Your task to perform on an android device: open a bookmark in the chrome app Image 0: 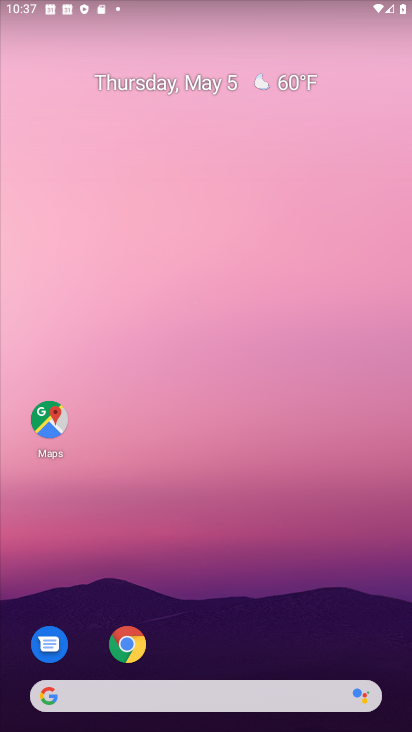
Step 0: drag from (182, 663) to (249, 232)
Your task to perform on an android device: open a bookmark in the chrome app Image 1: 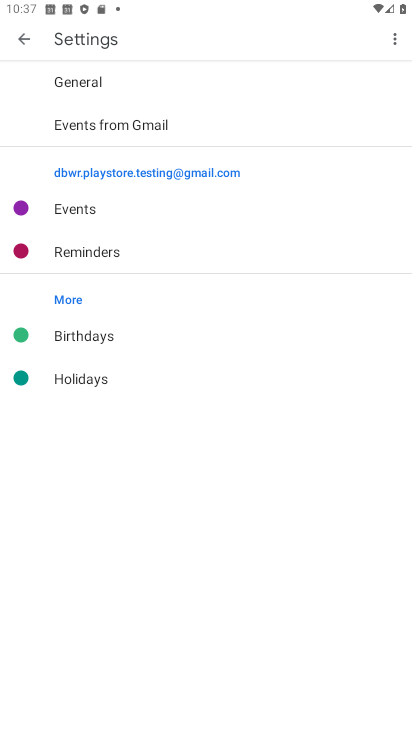
Step 1: press home button
Your task to perform on an android device: open a bookmark in the chrome app Image 2: 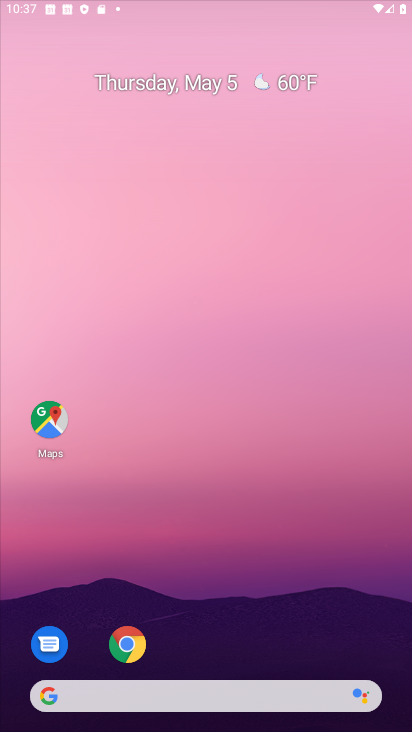
Step 2: drag from (228, 597) to (219, 273)
Your task to perform on an android device: open a bookmark in the chrome app Image 3: 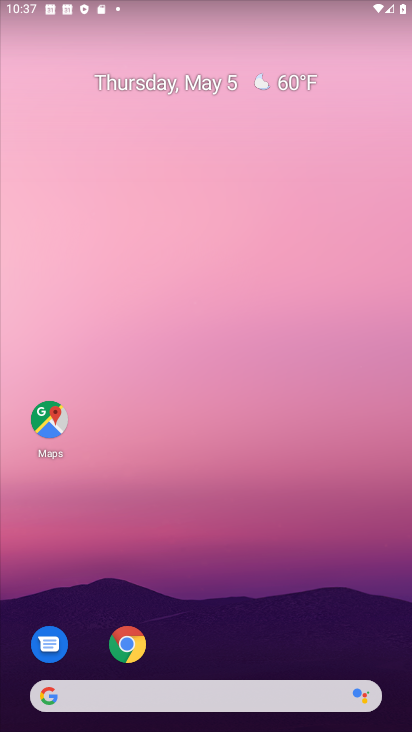
Step 3: drag from (169, 620) to (270, 69)
Your task to perform on an android device: open a bookmark in the chrome app Image 4: 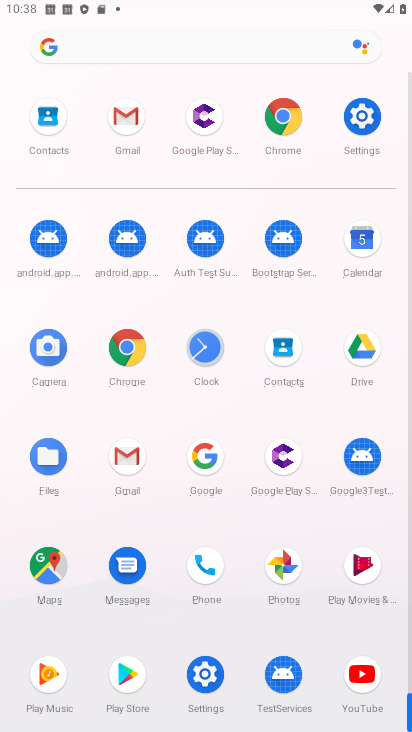
Step 4: click (273, 124)
Your task to perform on an android device: open a bookmark in the chrome app Image 5: 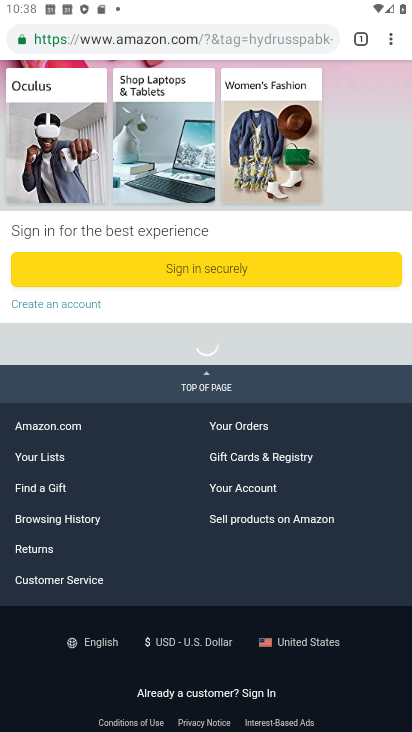
Step 5: drag from (202, 163) to (287, 600)
Your task to perform on an android device: open a bookmark in the chrome app Image 6: 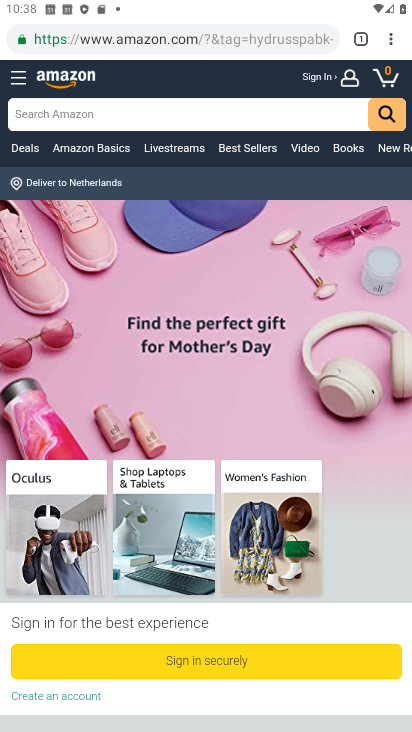
Step 6: drag from (217, 594) to (193, 307)
Your task to perform on an android device: open a bookmark in the chrome app Image 7: 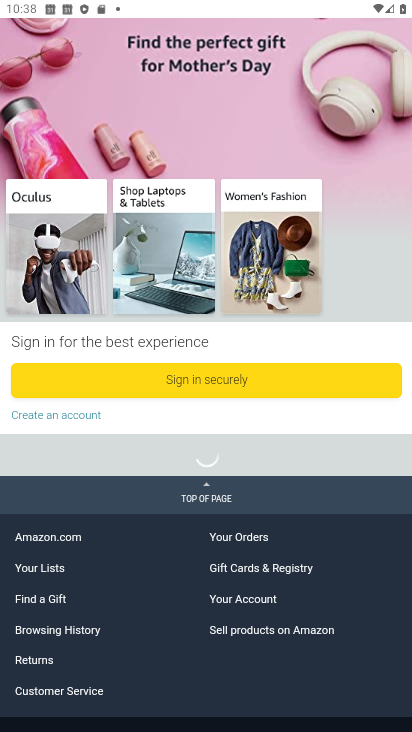
Step 7: drag from (181, 601) to (181, 164)
Your task to perform on an android device: open a bookmark in the chrome app Image 8: 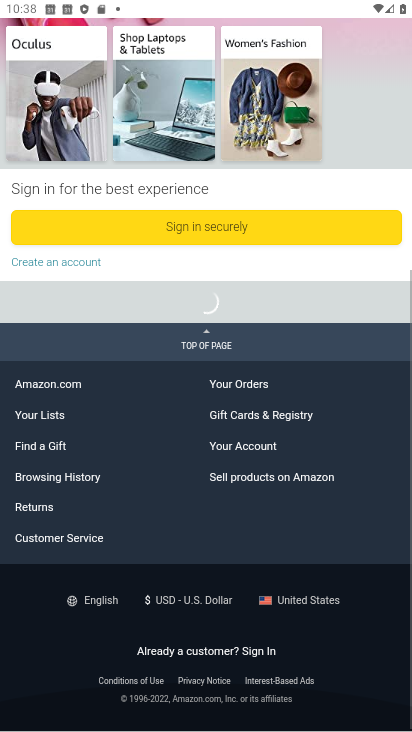
Step 8: drag from (180, 102) to (324, 709)
Your task to perform on an android device: open a bookmark in the chrome app Image 9: 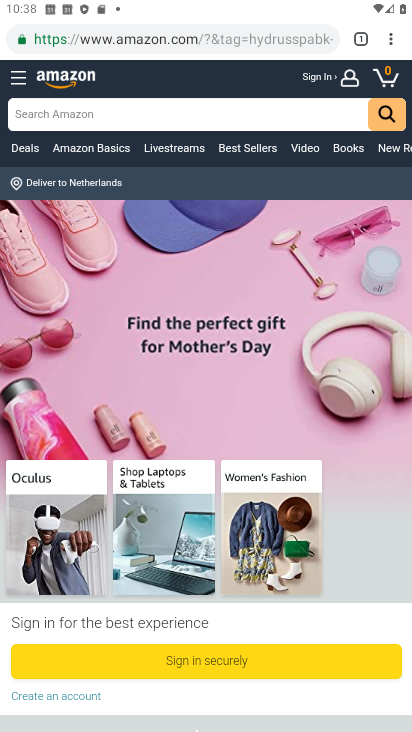
Step 9: click (386, 39)
Your task to perform on an android device: open a bookmark in the chrome app Image 10: 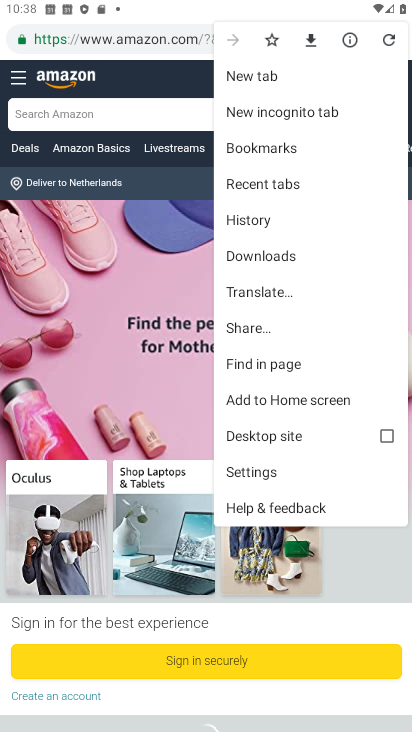
Step 10: click (301, 147)
Your task to perform on an android device: open a bookmark in the chrome app Image 11: 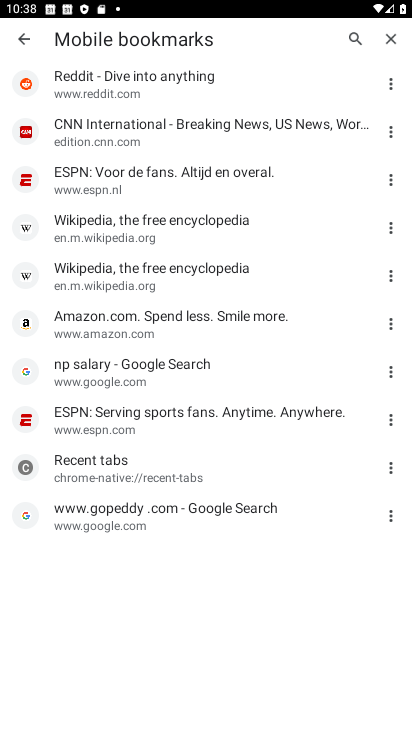
Step 11: drag from (199, 588) to (232, 176)
Your task to perform on an android device: open a bookmark in the chrome app Image 12: 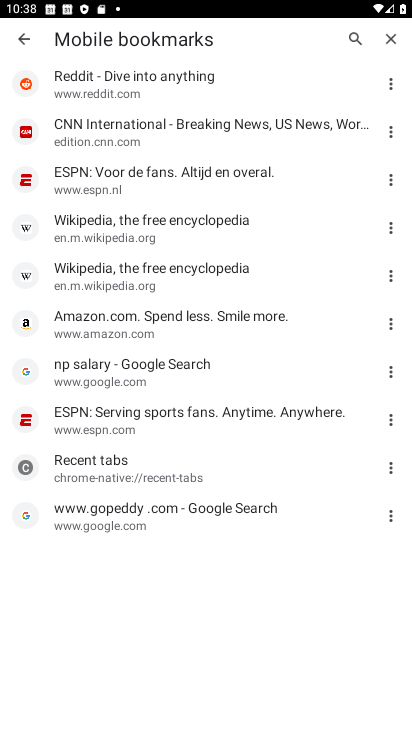
Step 12: click (388, 35)
Your task to perform on an android device: open a bookmark in the chrome app Image 13: 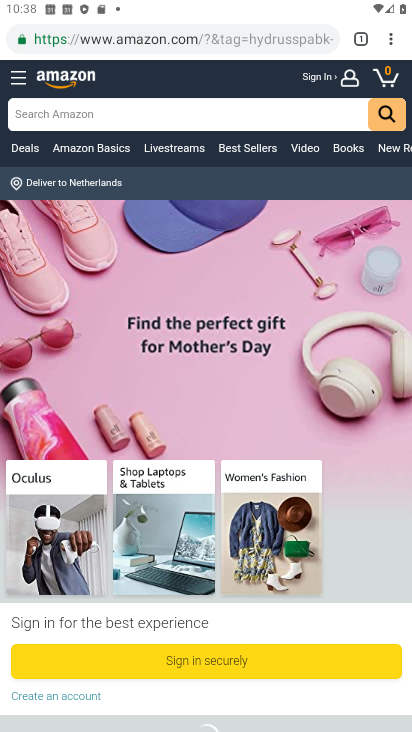
Step 13: click (385, 38)
Your task to perform on an android device: open a bookmark in the chrome app Image 14: 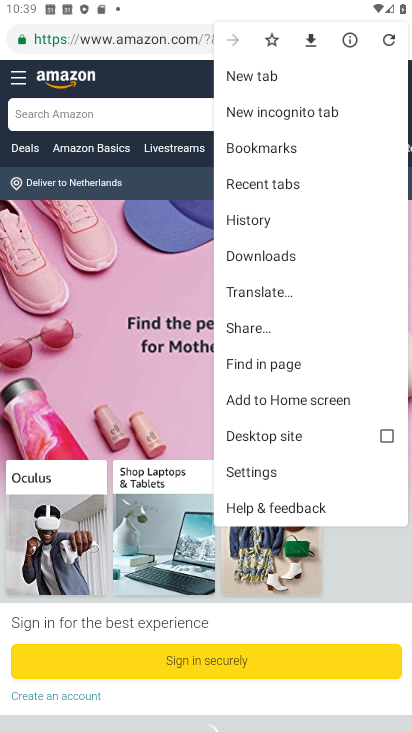
Step 14: click (273, 146)
Your task to perform on an android device: open a bookmark in the chrome app Image 15: 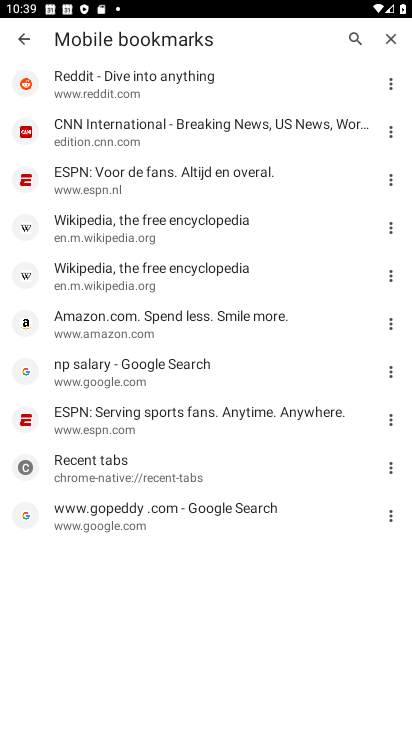
Step 15: drag from (244, 440) to (244, 62)
Your task to perform on an android device: open a bookmark in the chrome app Image 16: 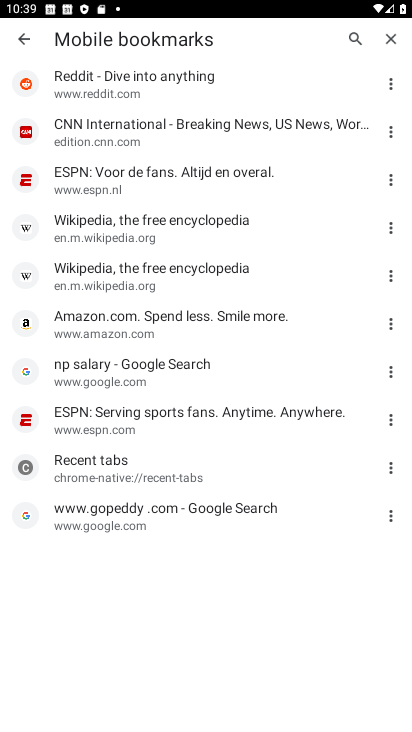
Step 16: click (120, 218)
Your task to perform on an android device: open a bookmark in the chrome app Image 17: 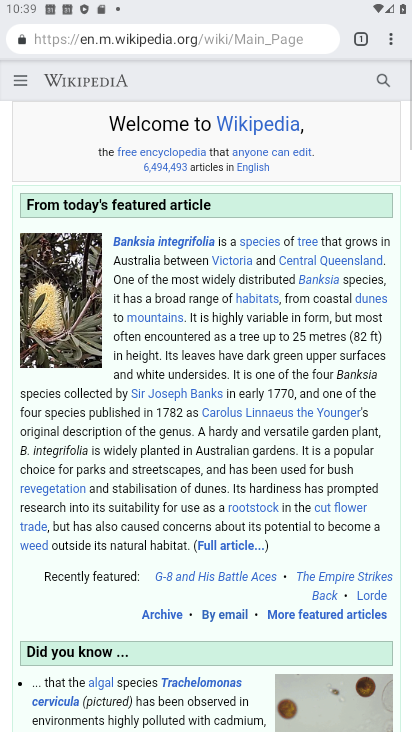
Step 17: drag from (254, 552) to (351, 91)
Your task to perform on an android device: open a bookmark in the chrome app Image 18: 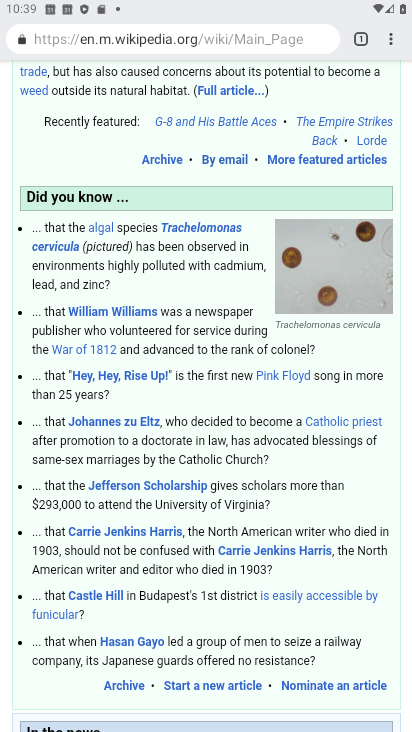
Step 18: click (385, 30)
Your task to perform on an android device: open a bookmark in the chrome app Image 19: 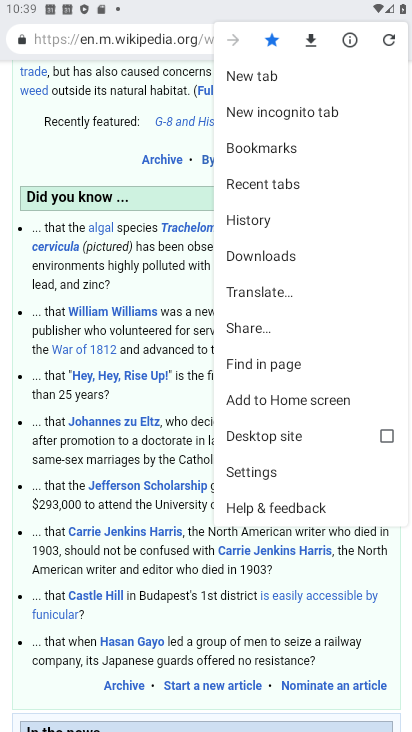
Step 19: click (277, 156)
Your task to perform on an android device: open a bookmark in the chrome app Image 20: 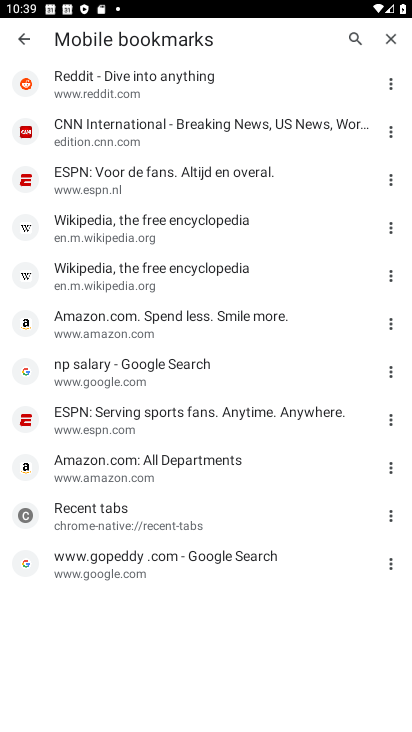
Step 20: task complete